Your task to perform on an android device: turn pop-ups off in chrome Image 0: 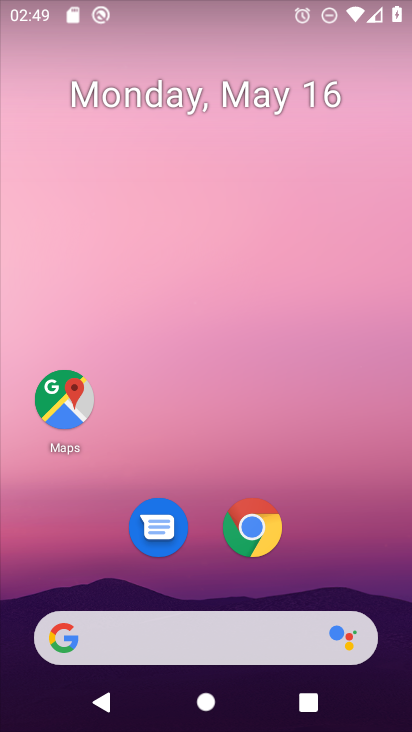
Step 0: drag from (354, 573) to (294, 96)
Your task to perform on an android device: turn pop-ups off in chrome Image 1: 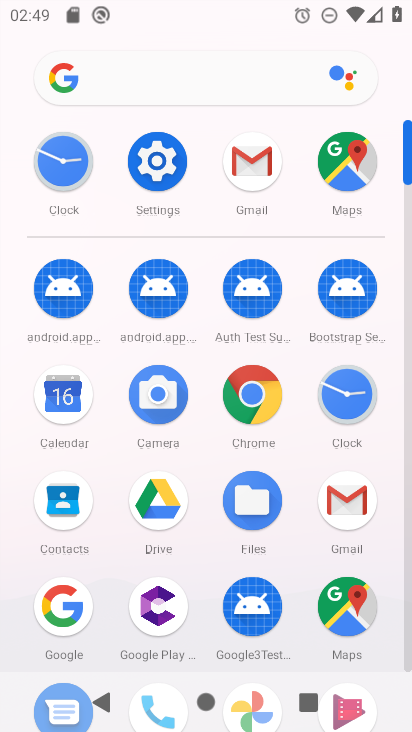
Step 1: click (266, 382)
Your task to perform on an android device: turn pop-ups off in chrome Image 2: 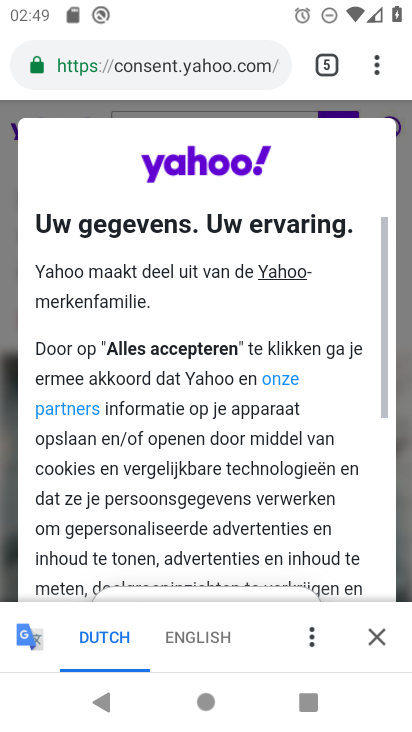
Step 2: click (387, 59)
Your task to perform on an android device: turn pop-ups off in chrome Image 3: 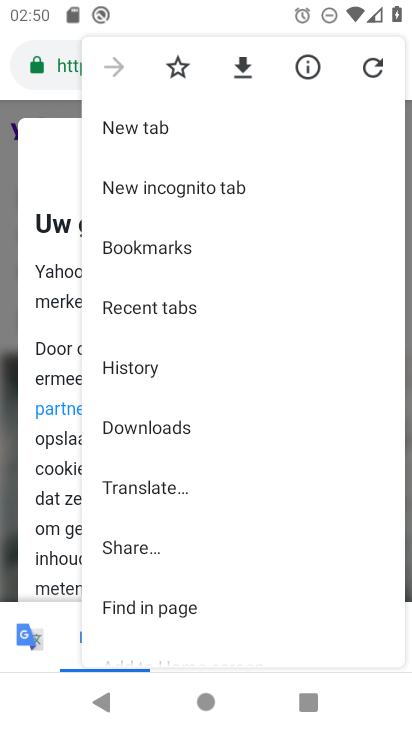
Step 3: drag from (146, 557) to (191, 270)
Your task to perform on an android device: turn pop-ups off in chrome Image 4: 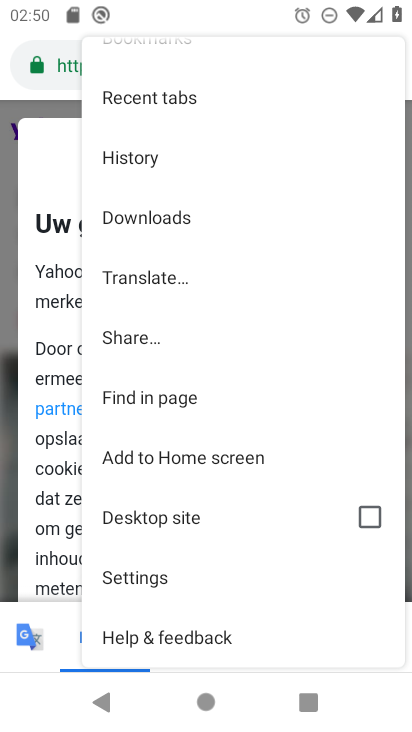
Step 4: click (167, 564)
Your task to perform on an android device: turn pop-ups off in chrome Image 5: 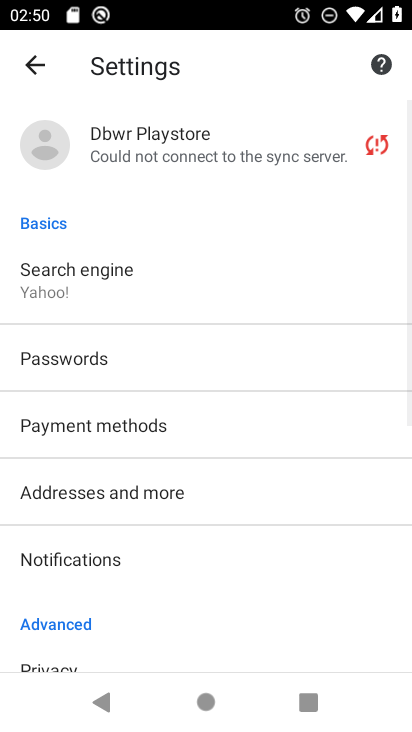
Step 5: drag from (235, 468) to (269, 284)
Your task to perform on an android device: turn pop-ups off in chrome Image 6: 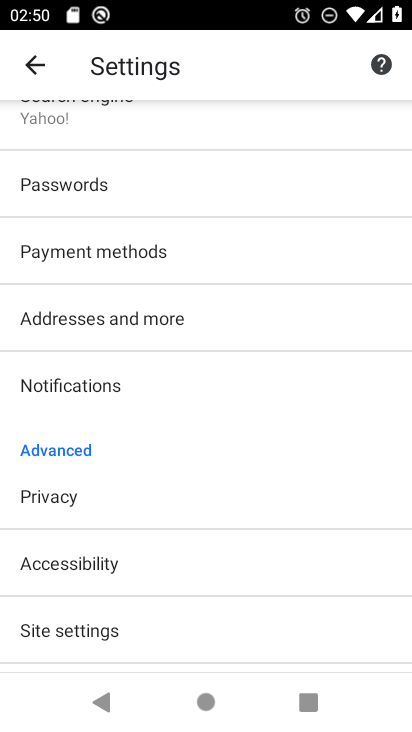
Step 6: drag from (245, 524) to (301, 348)
Your task to perform on an android device: turn pop-ups off in chrome Image 7: 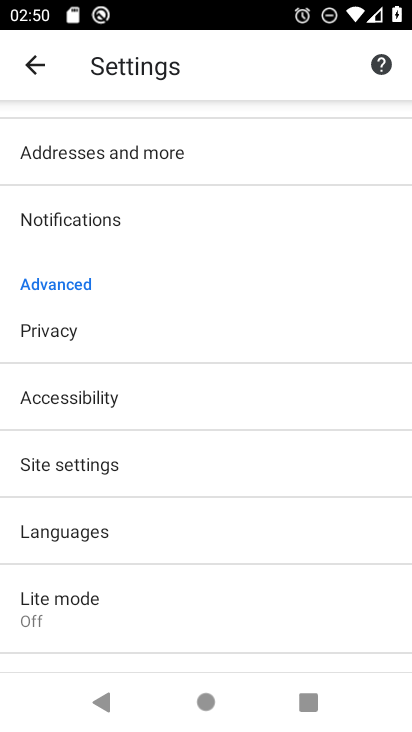
Step 7: click (256, 471)
Your task to perform on an android device: turn pop-ups off in chrome Image 8: 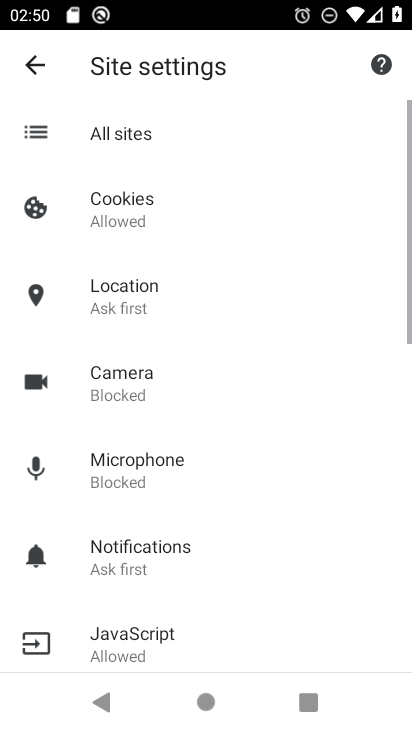
Step 8: drag from (189, 581) to (208, 439)
Your task to perform on an android device: turn pop-ups off in chrome Image 9: 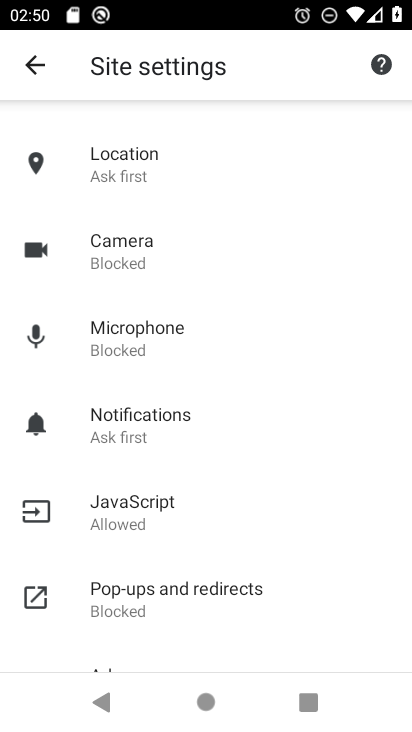
Step 9: click (183, 574)
Your task to perform on an android device: turn pop-ups off in chrome Image 10: 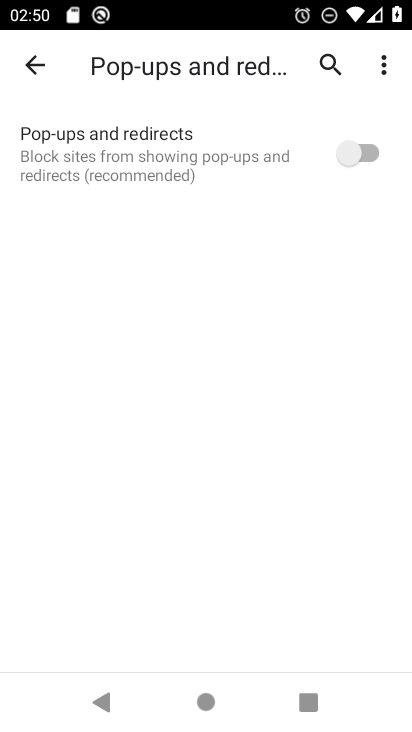
Step 10: task complete